Your task to perform on an android device: What is the recent news? Image 0: 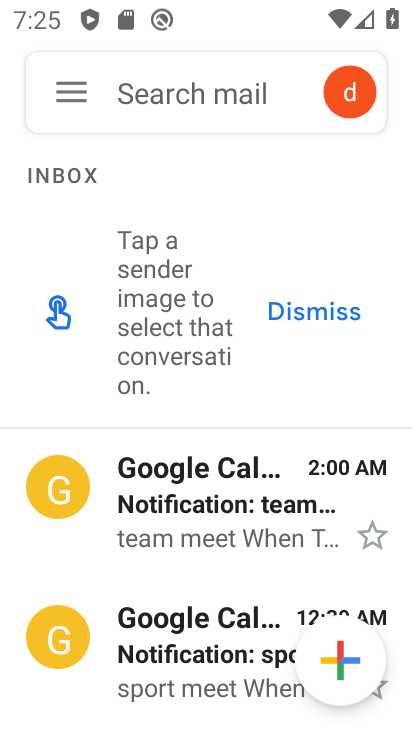
Step 0: press home button
Your task to perform on an android device: What is the recent news? Image 1: 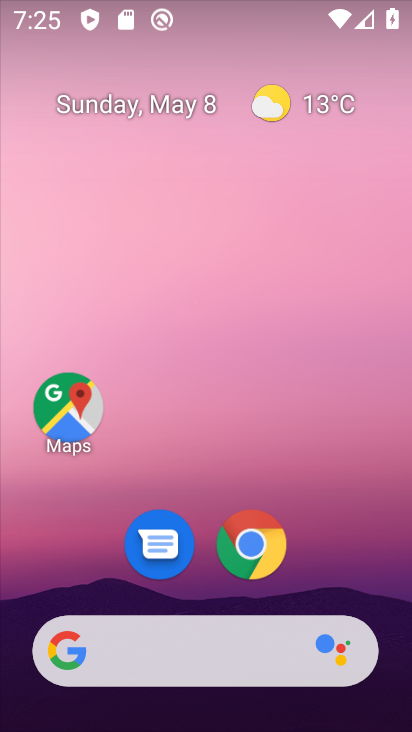
Step 1: task complete